Your task to perform on an android device: Open calendar and show me the fourth week of next month Image 0: 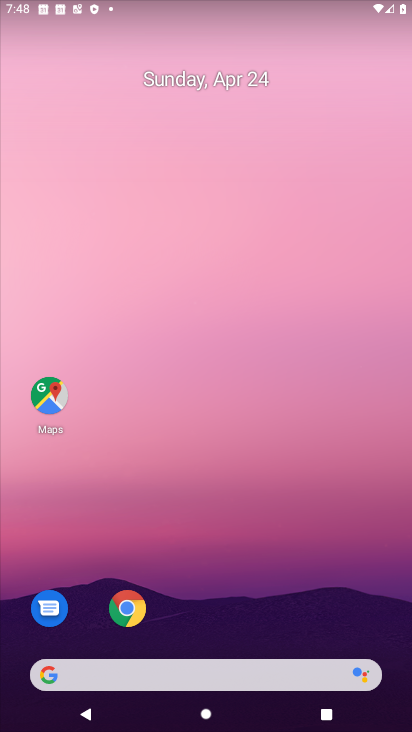
Step 0: drag from (311, 602) to (271, 112)
Your task to perform on an android device: Open calendar and show me the fourth week of next month Image 1: 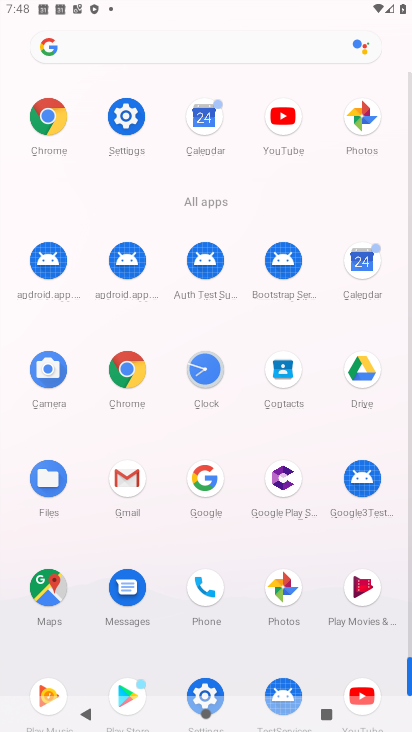
Step 1: click (361, 258)
Your task to perform on an android device: Open calendar and show me the fourth week of next month Image 2: 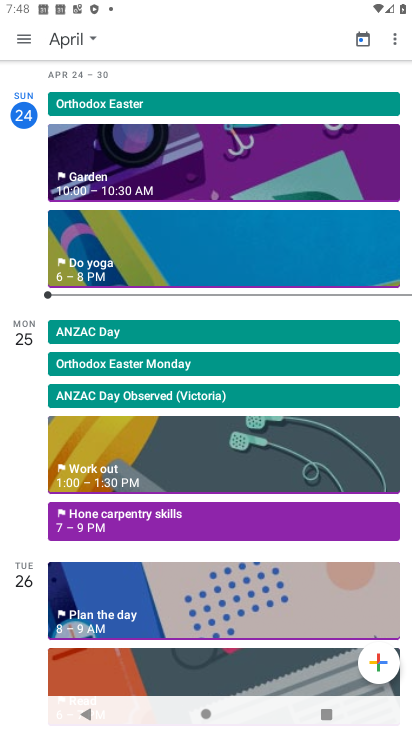
Step 2: click (67, 34)
Your task to perform on an android device: Open calendar and show me the fourth week of next month Image 3: 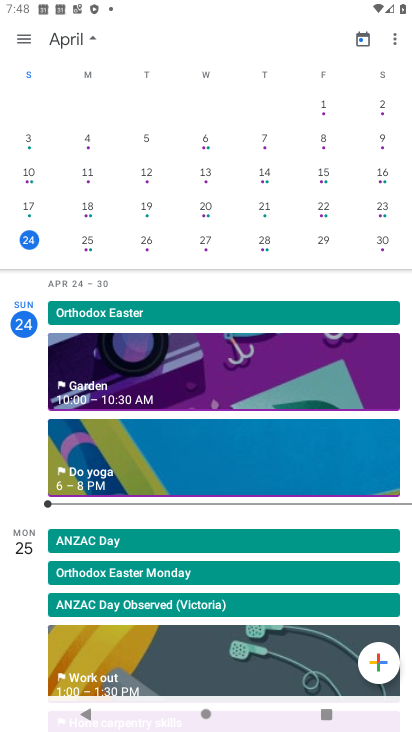
Step 3: drag from (350, 187) to (70, 155)
Your task to perform on an android device: Open calendar and show me the fourth week of next month Image 4: 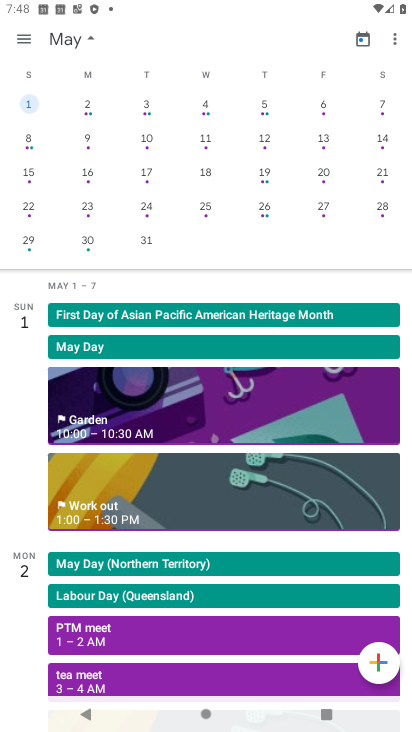
Step 4: click (140, 204)
Your task to perform on an android device: Open calendar and show me the fourth week of next month Image 5: 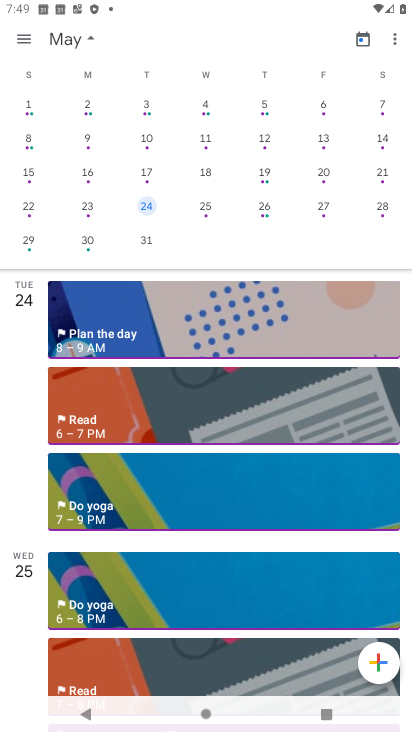
Step 5: task complete